Your task to perform on an android device: turn pop-ups off in chrome Image 0: 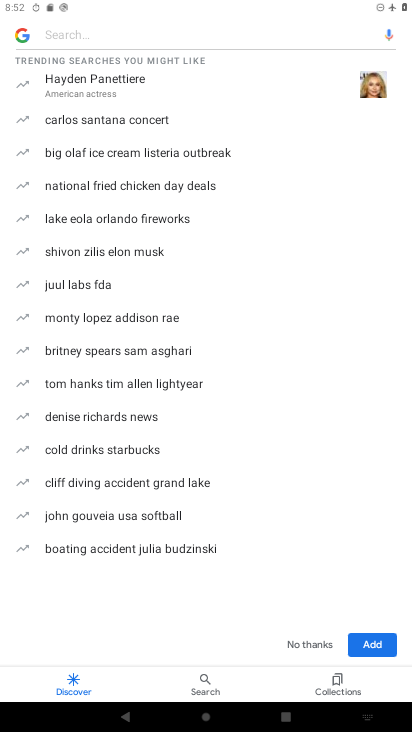
Step 0: press home button
Your task to perform on an android device: turn pop-ups off in chrome Image 1: 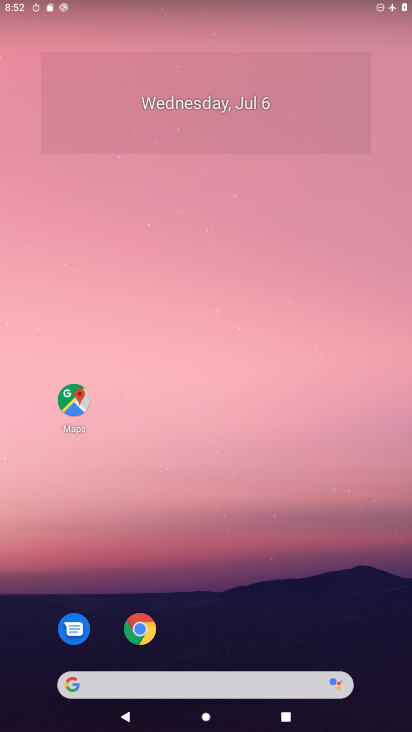
Step 1: click (145, 625)
Your task to perform on an android device: turn pop-ups off in chrome Image 2: 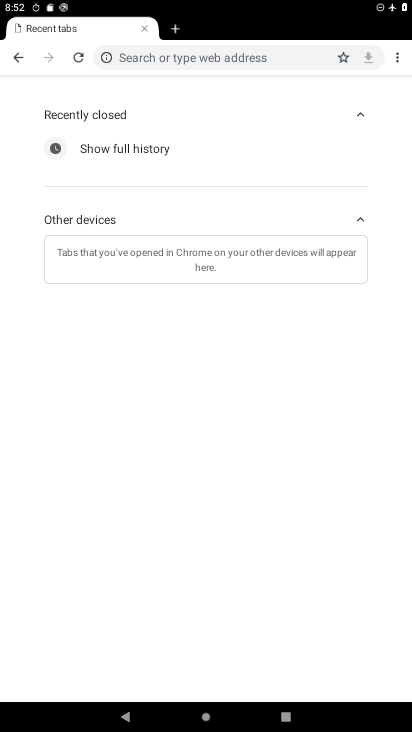
Step 2: click (396, 57)
Your task to perform on an android device: turn pop-ups off in chrome Image 3: 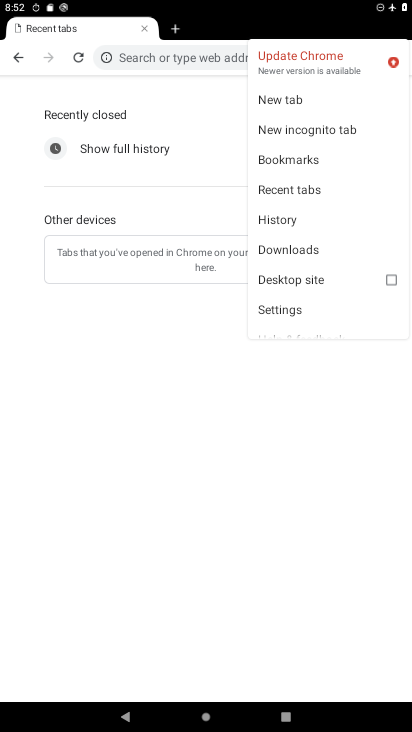
Step 3: click (280, 305)
Your task to perform on an android device: turn pop-ups off in chrome Image 4: 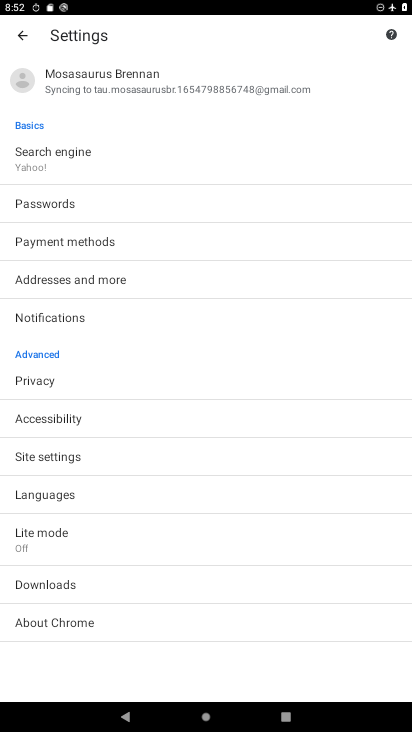
Step 4: click (77, 457)
Your task to perform on an android device: turn pop-ups off in chrome Image 5: 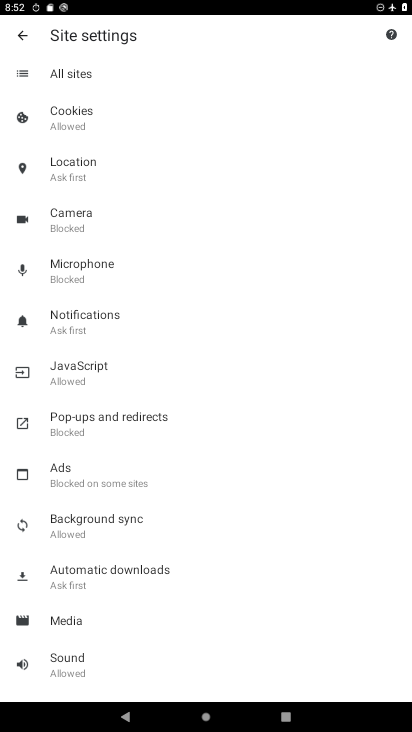
Step 5: click (85, 416)
Your task to perform on an android device: turn pop-ups off in chrome Image 6: 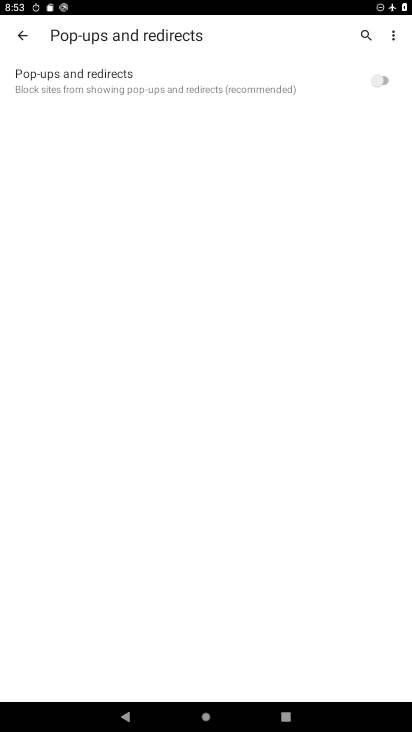
Step 6: task complete